Your task to perform on an android device: Open my contact list Image 0: 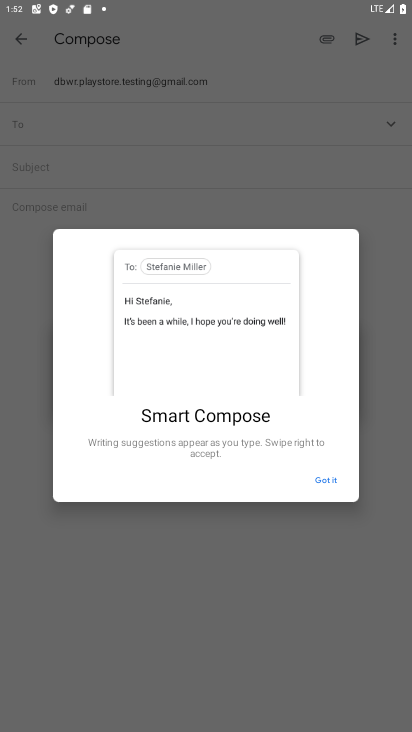
Step 0: press home button
Your task to perform on an android device: Open my contact list Image 1: 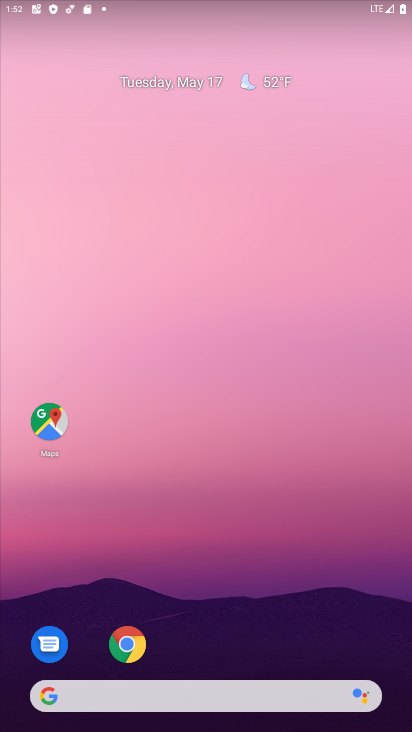
Step 1: drag from (198, 705) to (205, 124)
Your task to perform on an android device: Open my contact list Image 2: 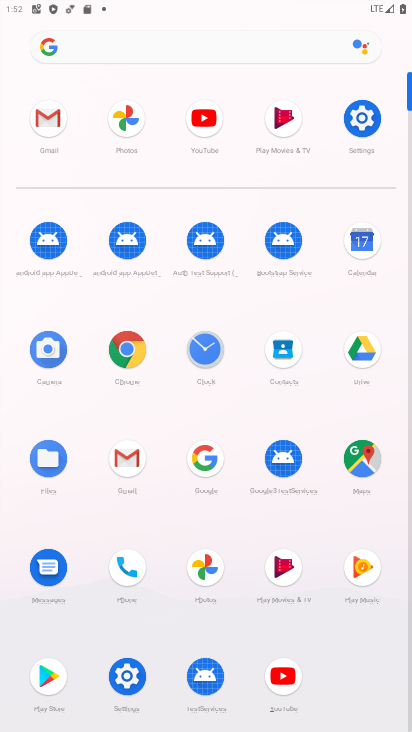
Step 2: click (284, 358)
Your task to perform on an android device: Open my contact list Image 3: 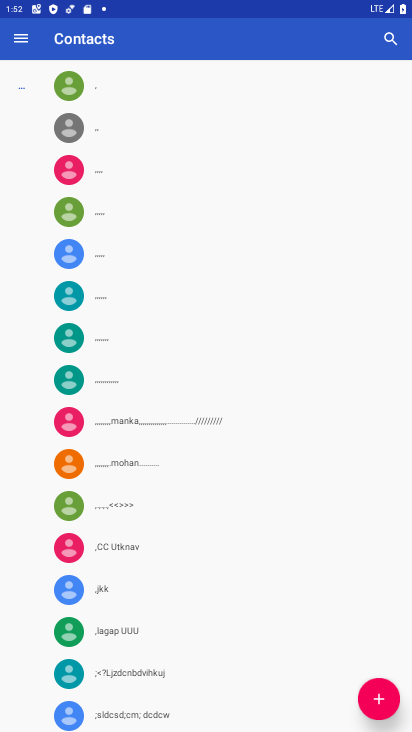
Step 3: task complete